Your task to perform on an android device: Open the calendar and show me this week's events? Image 0: 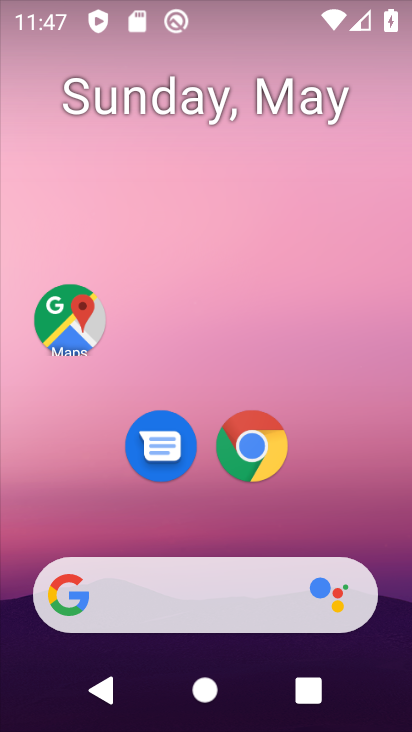
Step 0: drag from (302, 516) to (403, 30)
Your task to perform on an android device: Open the calendar and show me this week's events? Image 1: 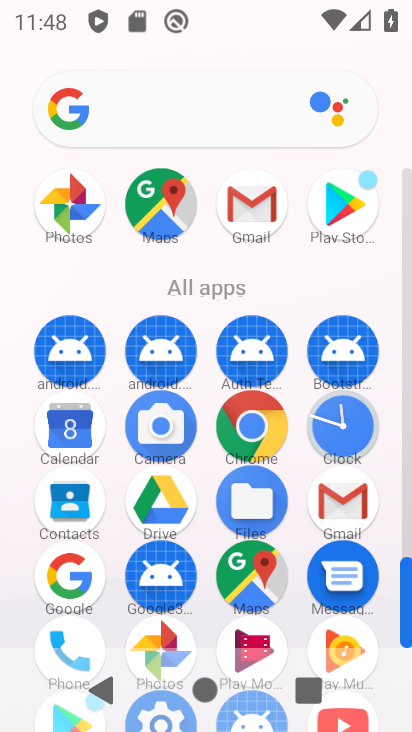
Step 1: drag from (202, 588) to (263, 180)
Your task to perform on an android device: Open the calendar and show me this week's events? Image 2: 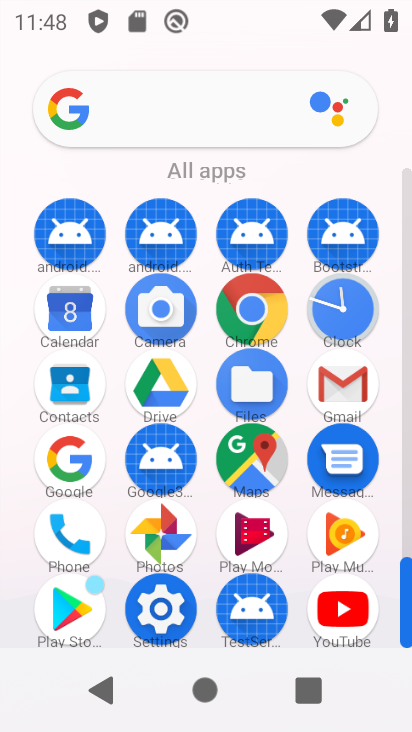
Step 2: click (81, 296)
Your task to perform on an android device: Open the calendar and show me this week's events? Image 3: 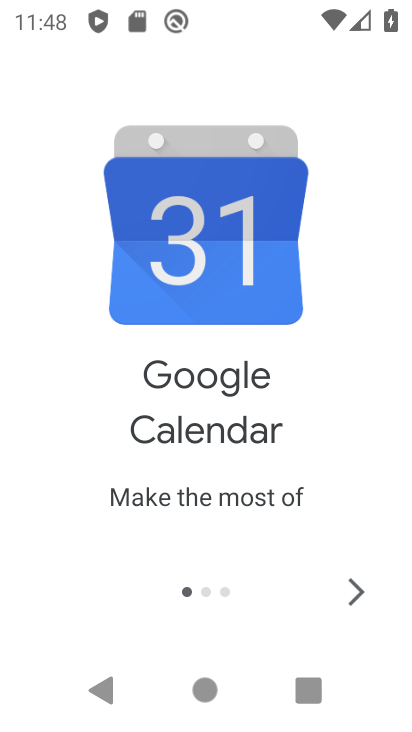
Step 3: click (357, 582)
Your task to perform on an android device: Open the calendar and show me this week's events? Image 4: 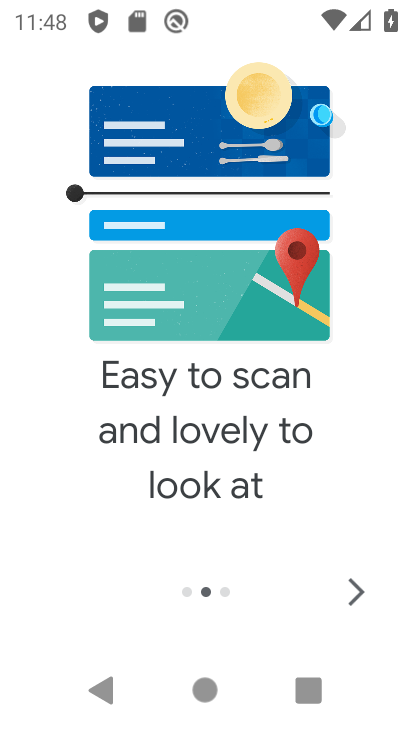
Step 4: click (356, 582)
Your task to perform on an android device: Open the calendar and show me this week's events? Image 5: 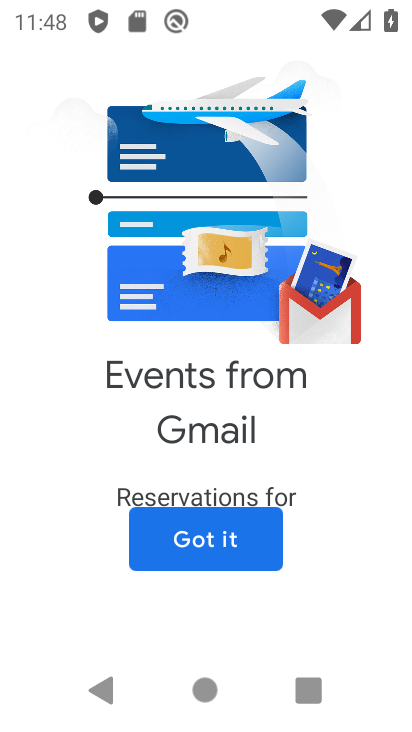
Step 5: click (243, 545)
Your task to perform on an android device: Open the calendar and show me this week's events? Image 6: 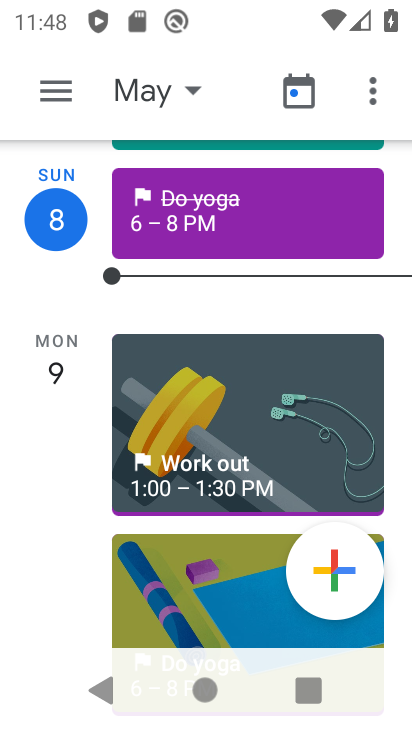
Step 6: click (52, 81)
Your task to perform on an android device: Open the calendar and show me this week's events? Image 7: 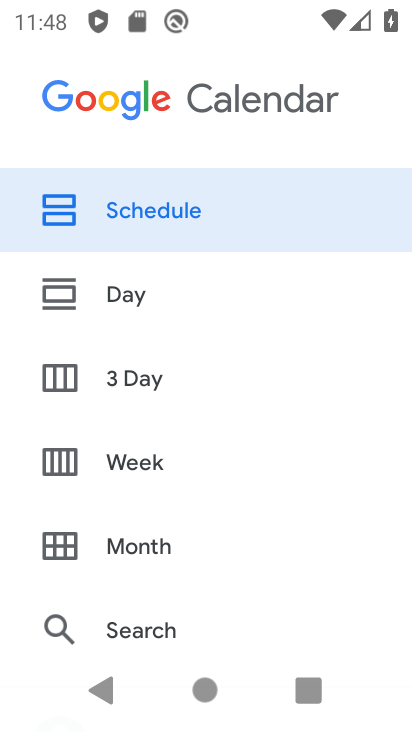
Step 7: click (74, 457)
Your task to perform on an android device: Open the calendar and show me this week's events? Image 8: 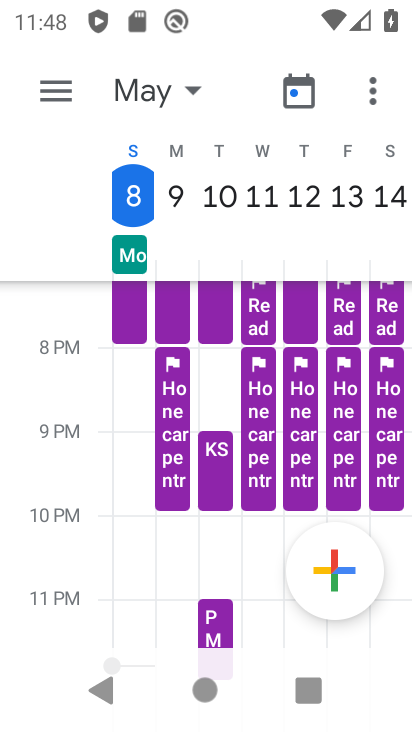
Step 8: task complete